Your task to perform on an android device: Open Yahoo.com Image 0: 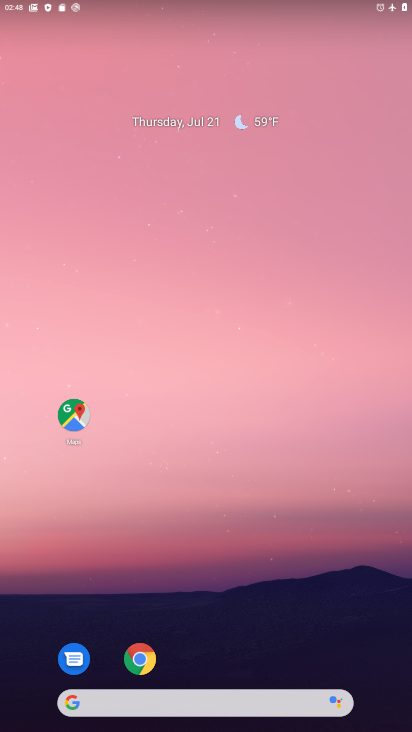
Step 0: drag from (304, 636) to (253, 121)
Your task to perform on an android device: Open Yahoo.com Image 1: 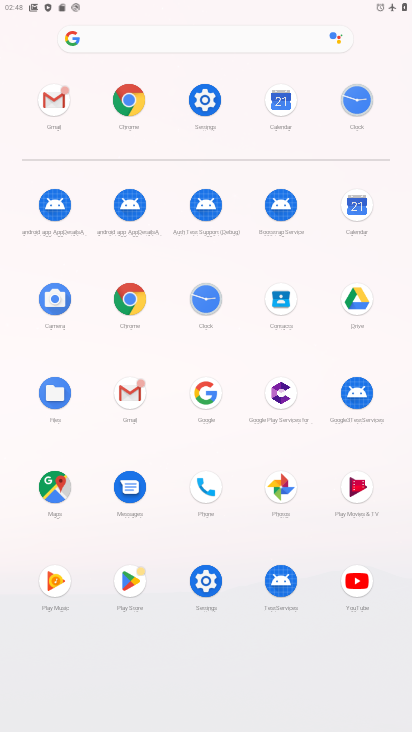
Step 1: click (129, 98)
Your task to perform on an android device: Open Yahoo.com Image 2: 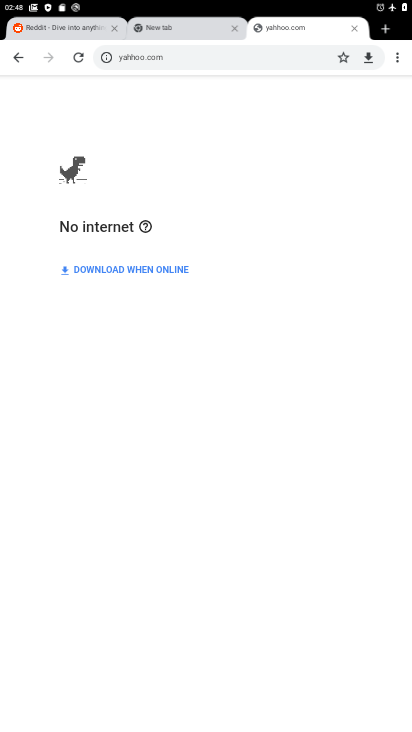
Step 2: click (269, 71)
Your task to perform on an android device: Open Yahoo.com Image 3: 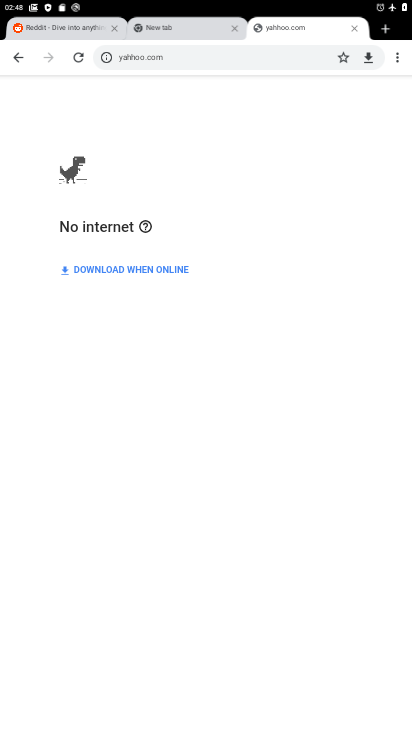
Step 3: task complete